Your task to perform on an android device: Go to location settings Image 0: 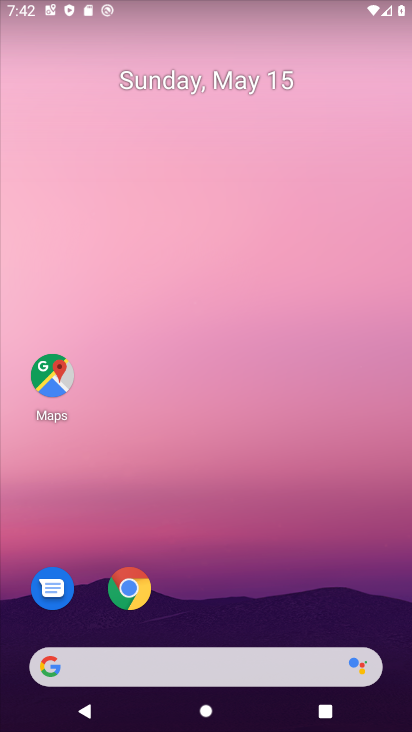
Step 0: drag from (217, 624) to (261, 118)
Your task to perform on an android device: Go to location settings Image 1: 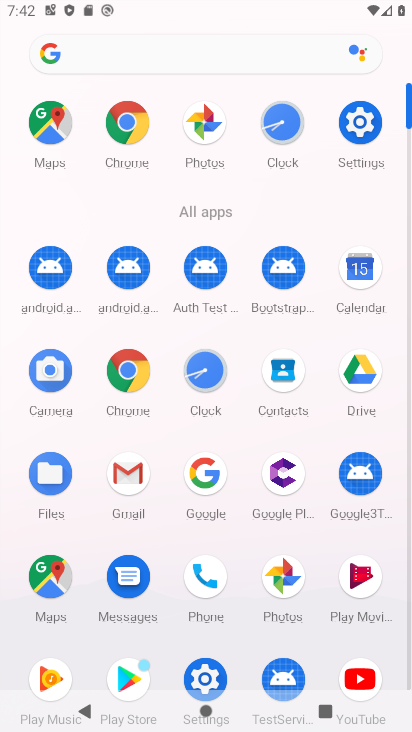
Step 1: click (205, 664)
Your task to perform on an android device: Go to location settings Image 2: 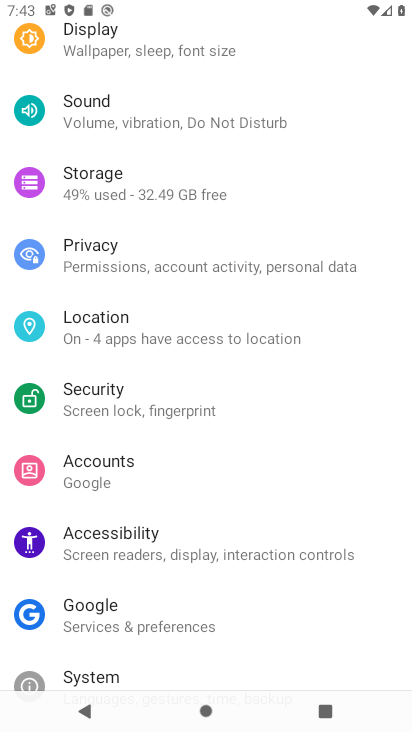
Step 2: click (136, 314)
Your task to perform on an android device: Go to location settings Image 3: 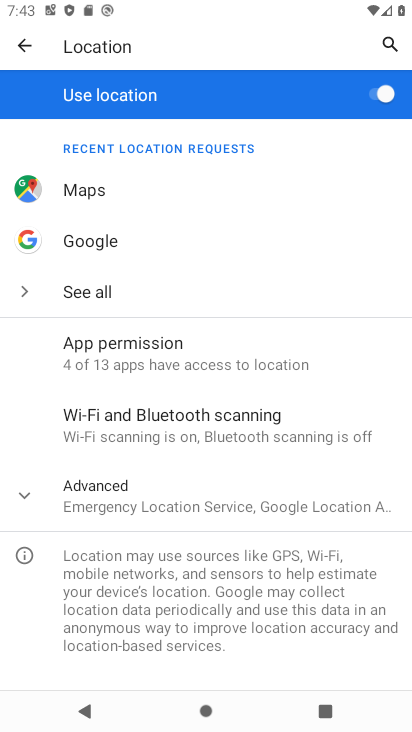
Step 3: click (32, 497)
Your task to perform on an android device: Go to location settings Image 4: 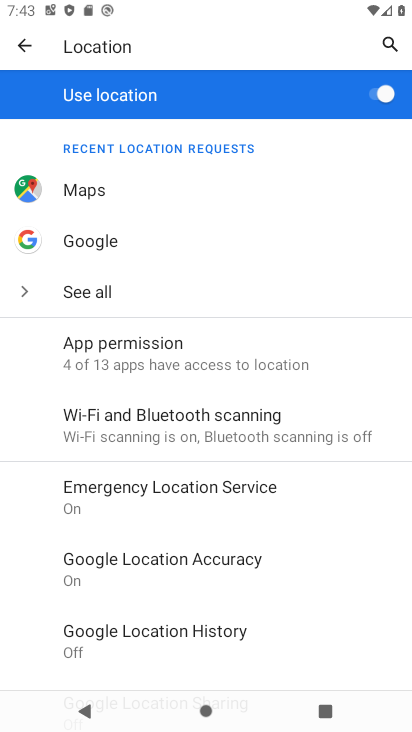
Step 4: task complete